Your task to perform on an android device: Search for vegetarian restaurants on Maps Image 0: 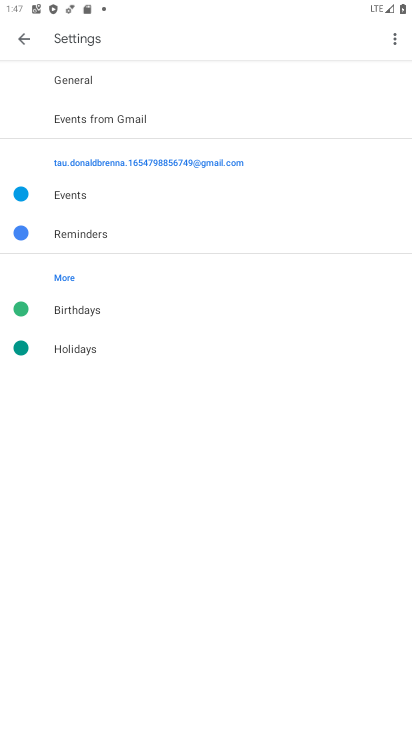
Step 0: press home button
Your task to perform on an android device: Search for vegetarian restaurants on Maps Image 1: 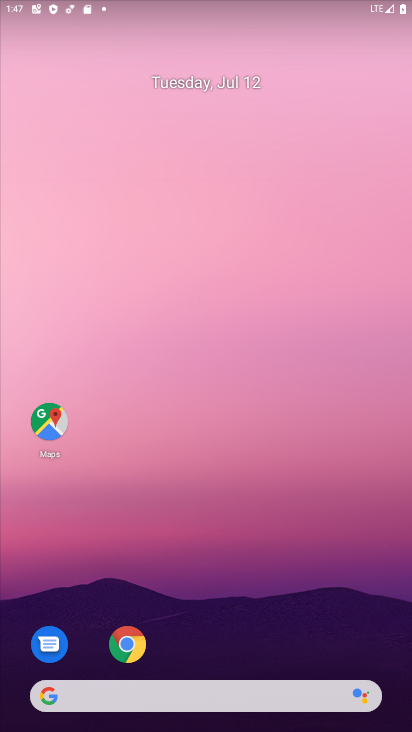
Step 1: drag from (195, 686) to (126, 78)
Your task to perform on an android device: Search for vegetarian restaurants on Maps Image 2: 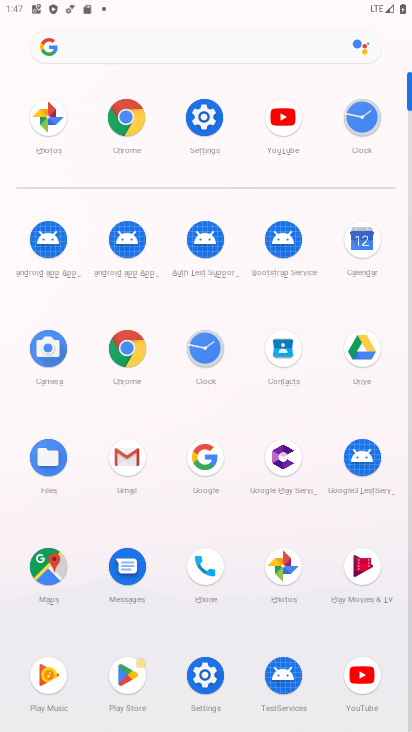
Step 2: click (26, 573)
Your task to perform on an android device: Search for vegetarian restaurants on Maps Image 3: 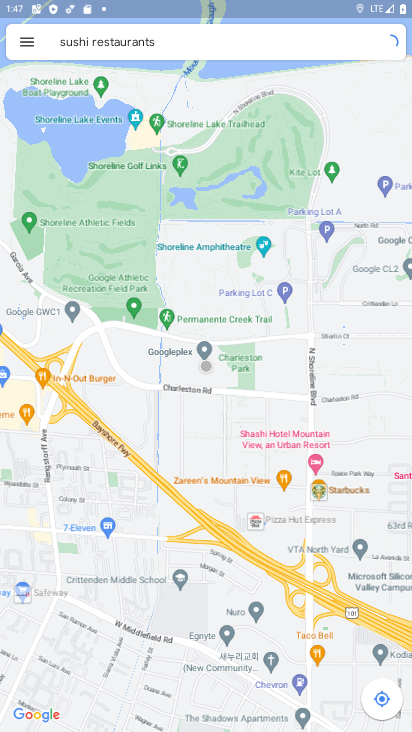
Step 3: click (145, 38)
Your task to perform on an android device: Search for vegetarian restaurants on Maps Image 4: 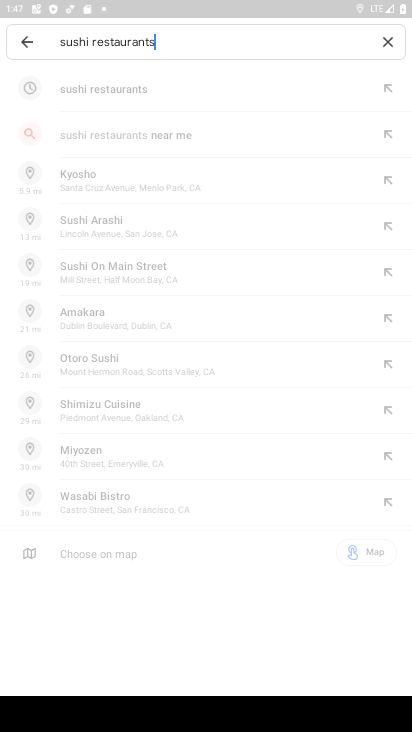
Step 4: click (391, 43)
Your task to perform on an android device: Search for vegetarian restaurants on Maps Image 5: 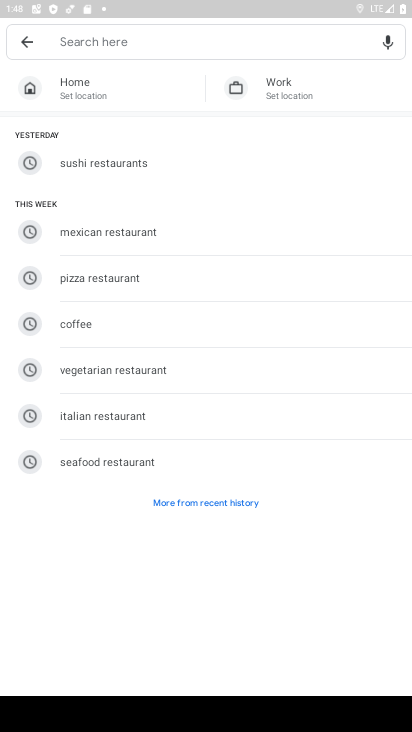
Step 5: click (113, 362)
Your task to perform on an android device: Search for vegetarian restaurants on Maps Image 6: 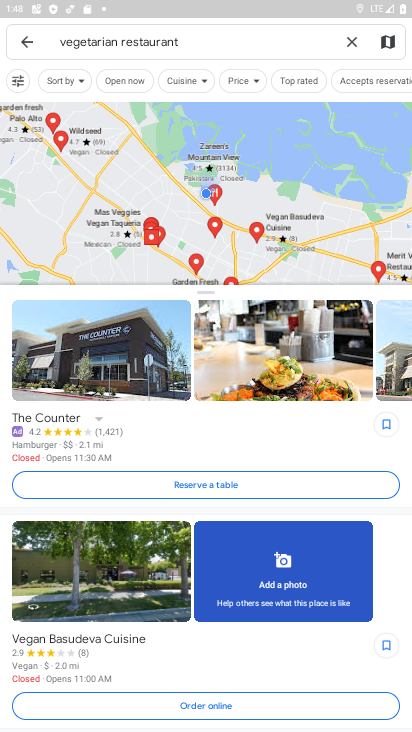
Step 6: task complete